Your task to perform on an android device: Open network settings Image 0: 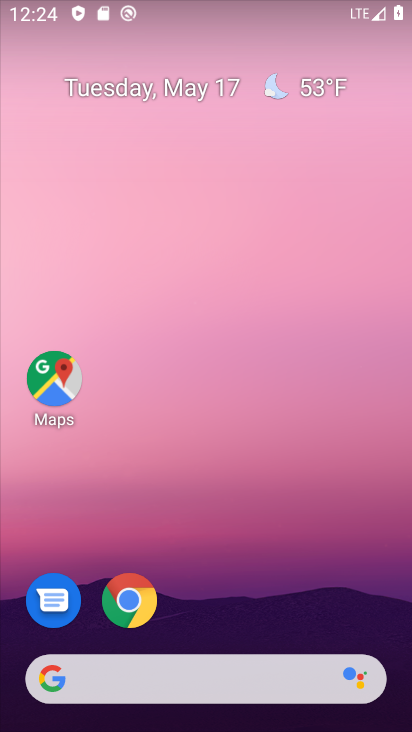
Step 0: drag from (262, 626) to (148, 15)
Your task to perform on an android device: Open network settings Image 1: 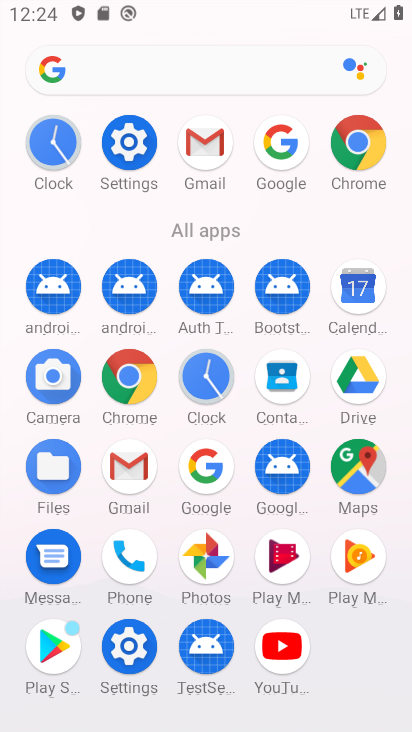
Step 1: click (128, 150)
Your task to perform on an android device: Open network settings Image 2: 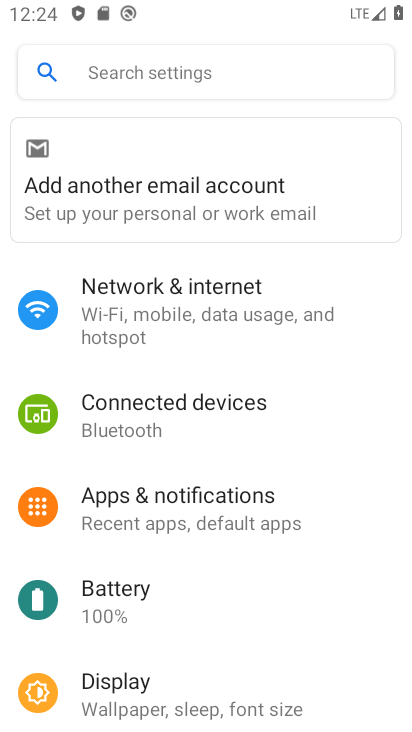
Step 2: click (181, 306)
Your task to perform on an android device: Open network settings Image 3: 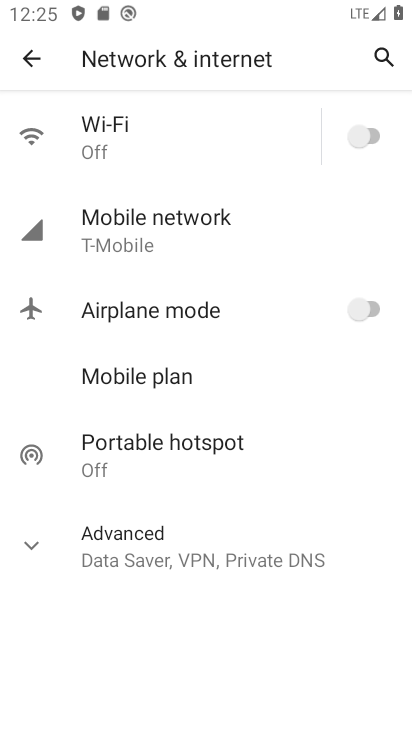
Step 3: task complete